Your task to perform on an android device: toggle javascript in the chrome app Image 0: 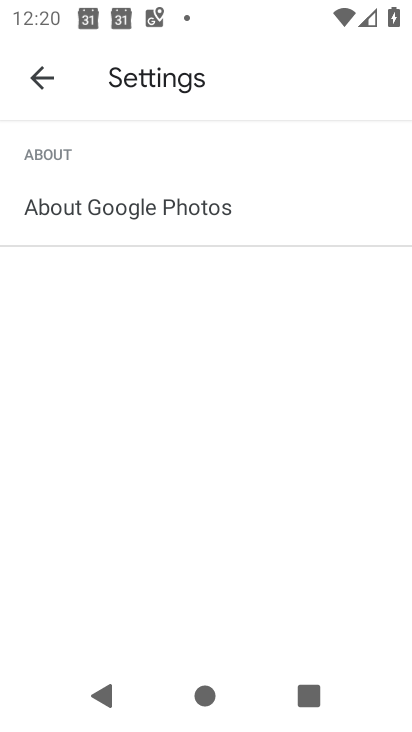
Step 0: press home button
Your task to perform on an android device: toggle javascript in the chrome app Image 1: 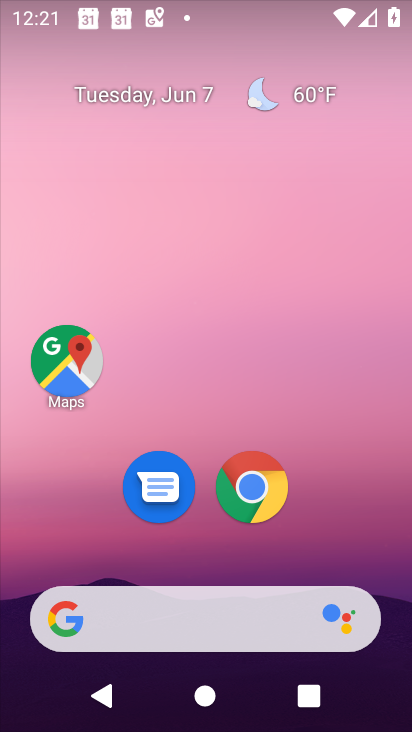
Step 1: click (273, 483)
Your task to perform on an android device: toggle javascript in the chrome app Image 2: 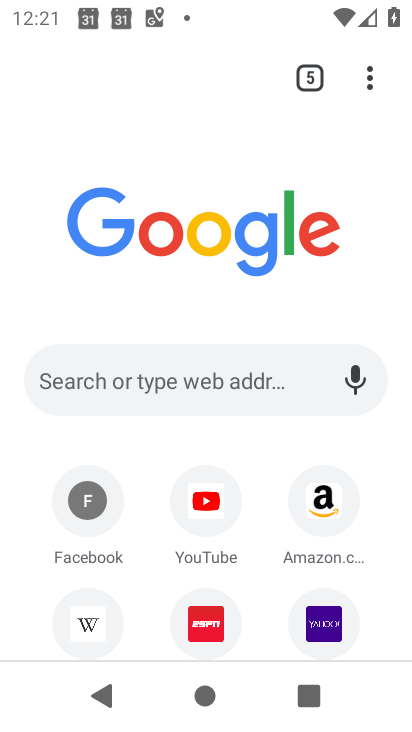
Step 2: click (373, 87)
Your task to perform on an android device: toggle javascript in the chrome app Image 3: 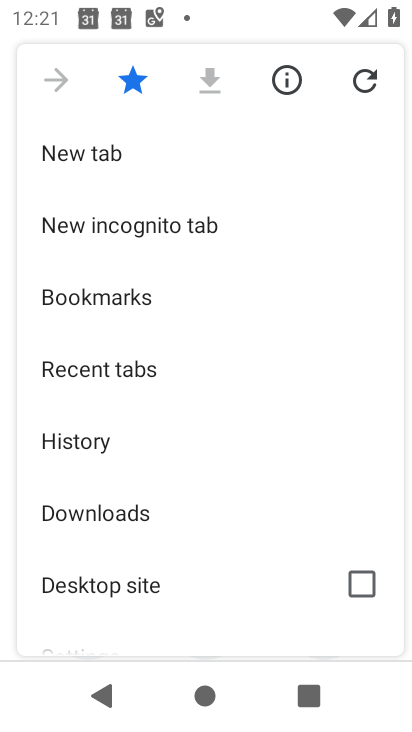
Step 3: drag from (172, 616) to (178, 170)
Your task to perform on an android device: toggle javascript in the chrome app Image 4: 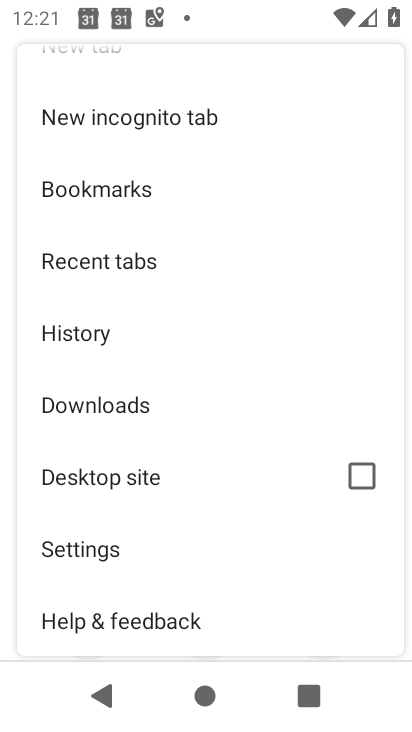
Step 4: click (127, 546)
Your task to perform on an android device: toggle javascript in the chrome app Image 5: 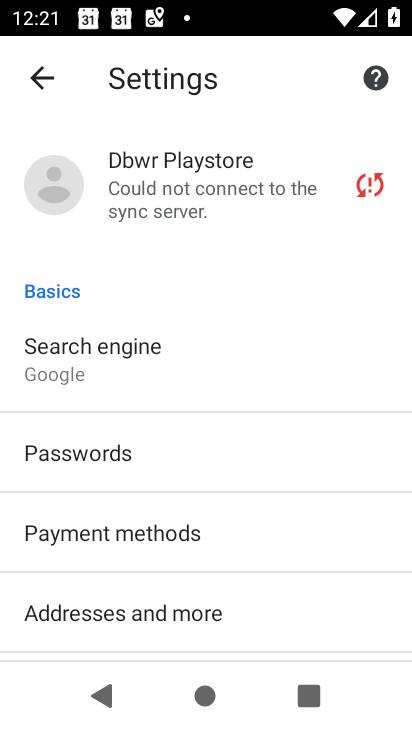
Step 5: drag from (223, 649) to (247, 30)
Your task to perform on an android device: toggle javascript in the chrome app Image 6: 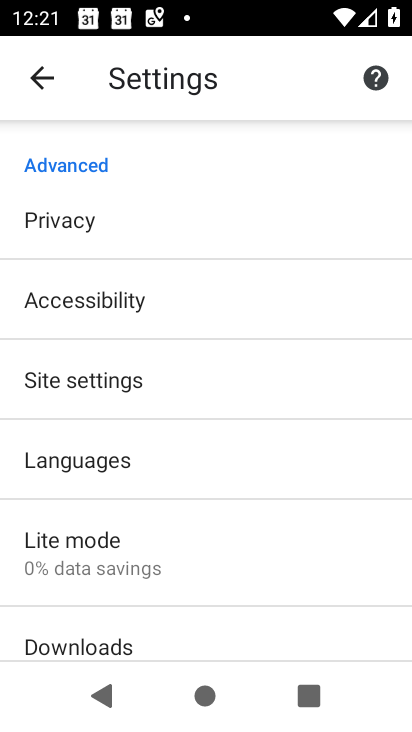
Step 6: click (192, 396)
Your task to perform on an android device: toggle javascript in the chrome app Image 7: 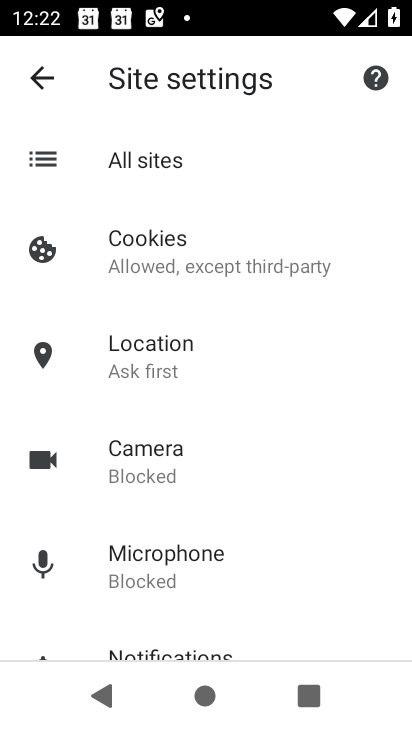
Step 7: drag from (219, 575) to (201, 304)
Your task to perform on an android device: toggle javascript in the chrome app Image 8: 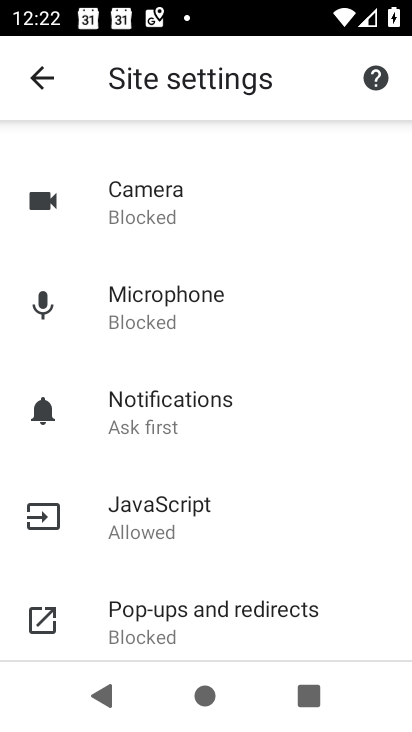
Step 8: click (214, 494)
Your task to perform on an android device: toggle javascript in the chrome app Image 9: 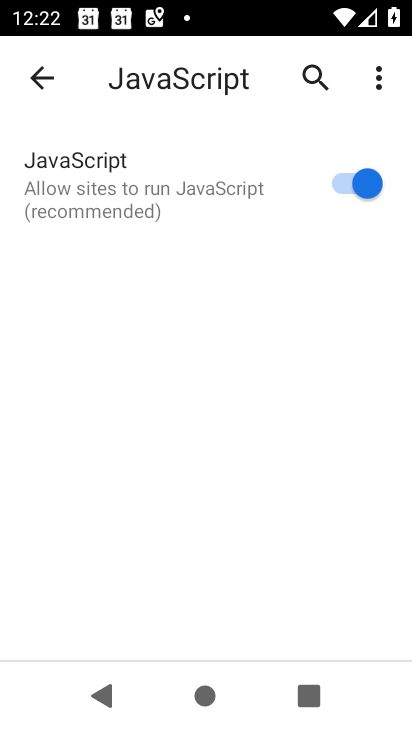
Step 9: click (349, 191)
Your task to perform on an android device: toggle javascript in the chrome app Image 10: 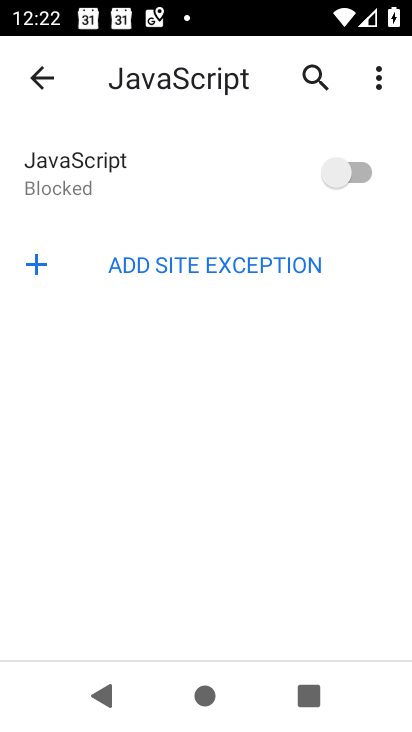
Step 10: task complete